Your task to perform on an android device: Go to internet settings Image 0: 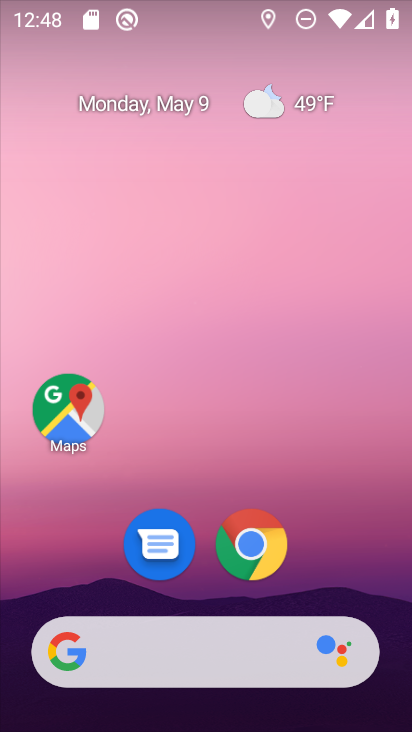
Step 0: drag from (362, 531) to (333, 66)
Your task to perform on an android device: Go to internet settings Image 1: 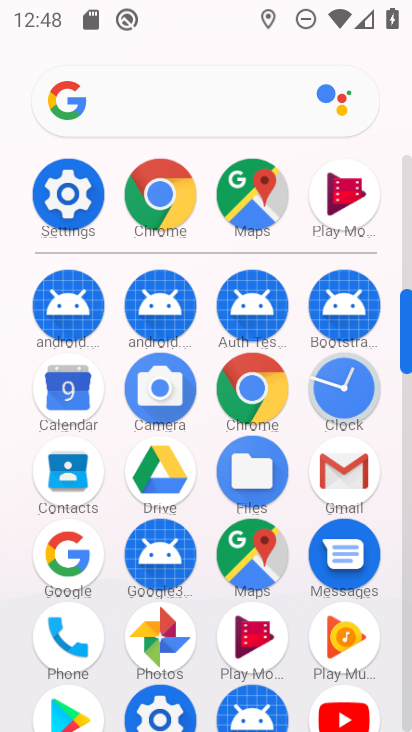
Step 1: click (71, 223)
Your task to perform on an android device: Go to internet settings Image 2: 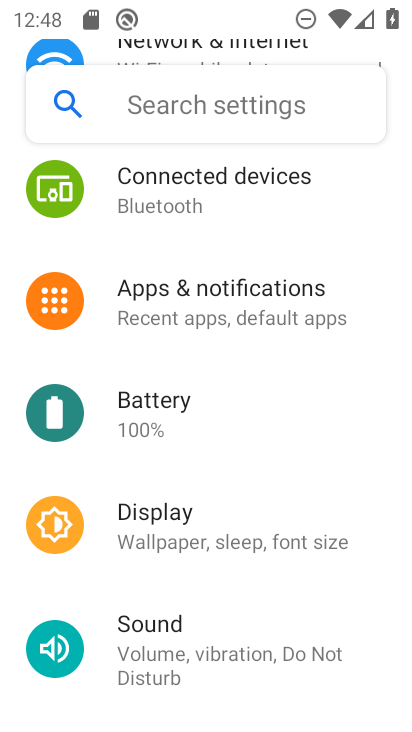
Step 2: drag from (225, 182) to (170, 511)
Your task to perform on an android device: Go to internet settings Image 3: 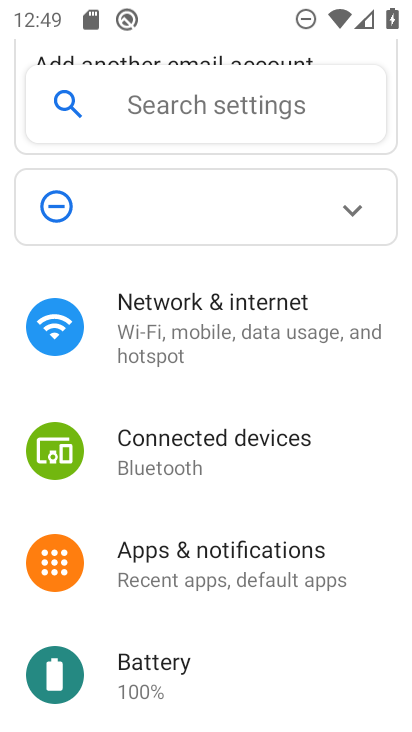
Step 3: drag from (237, 351) to (202, 557)
Your task to perform on an android device: Go to internet settings Image 4: 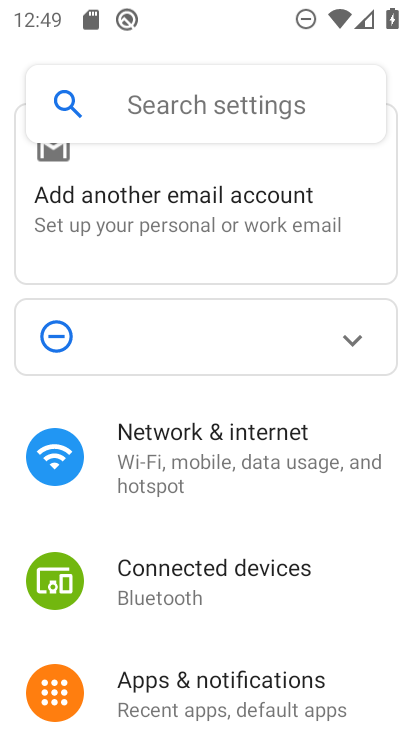
Step 4: click (190, 406)
Your task to perform on an android device: Go to internet settings Image 5: 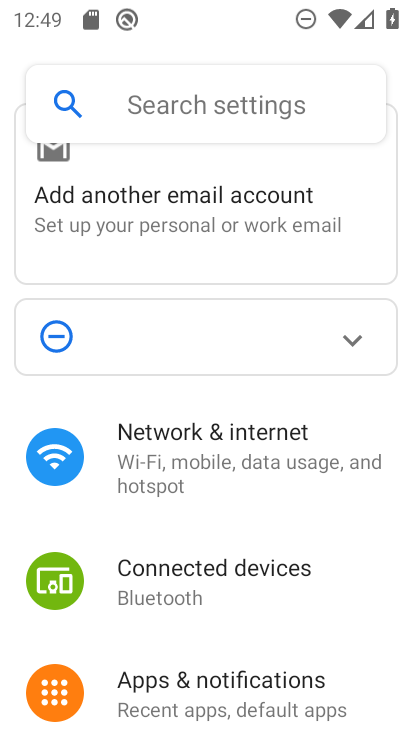
Step 5: click (164, 450)
Your task to perform on an android device: Go to internet settings Image 6: 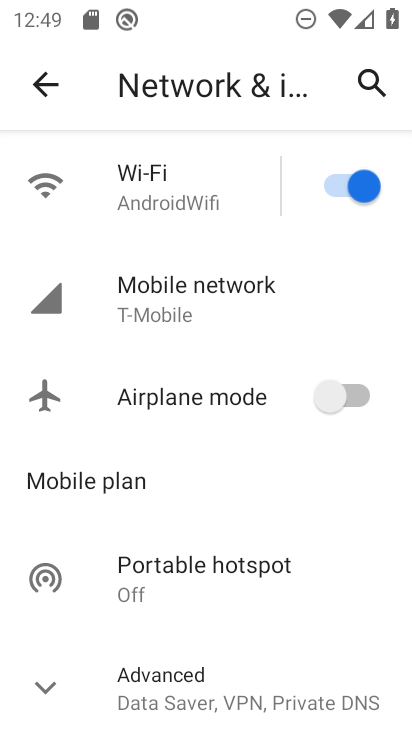
Step 6: click (187, 310)
Your task to perform on an android device: Go to internet settings Image 7: 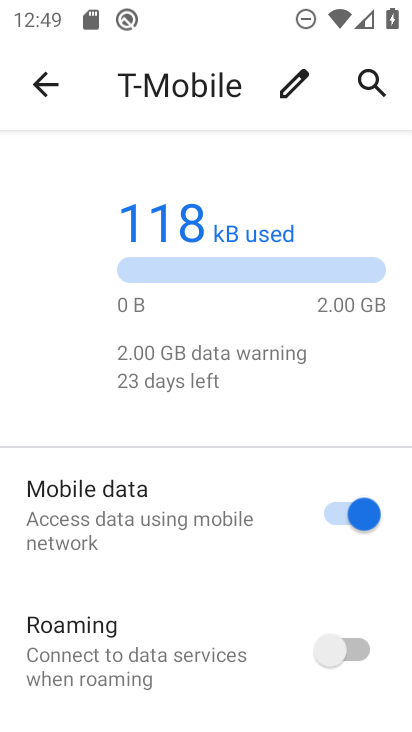
Step 7: task complete